Your task to perform on an android device: snooze an email in the gmail app Image 0: 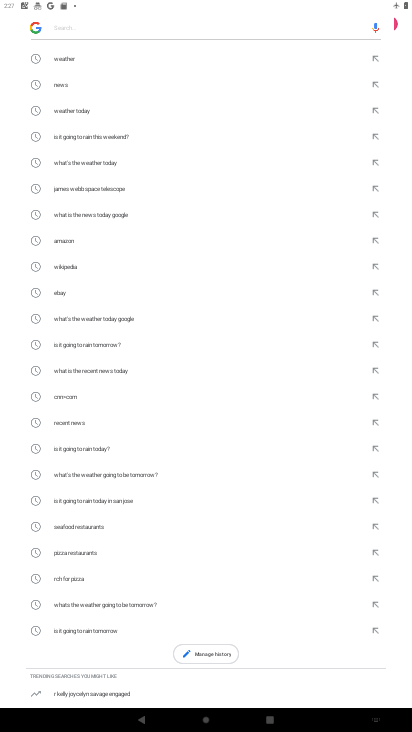
Step 0: press home button
Your task to perform on an android device: snooze an email in the gmail app Image 1: 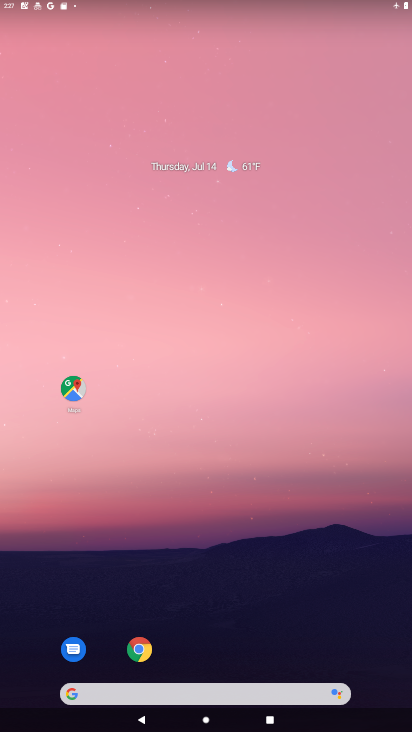
Step 1: drag from (296, 684) to (362, 3)
Your task to perform on an android device: snooze an email in the gmail app Image 2: 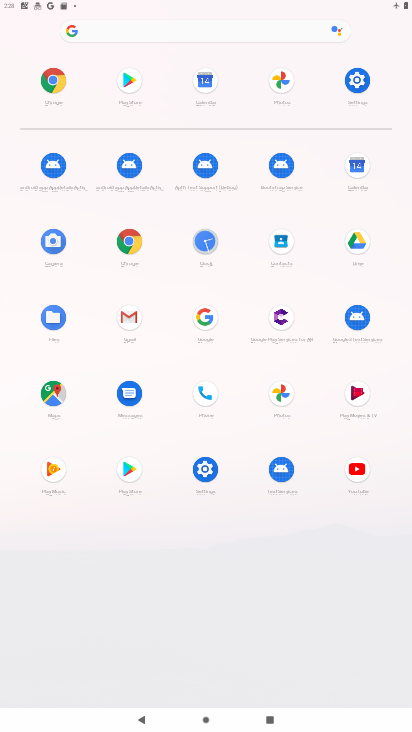
Step 2: click (126, 308)
Your task to perform on an android device: snooze an email in the gmail app Image 3: 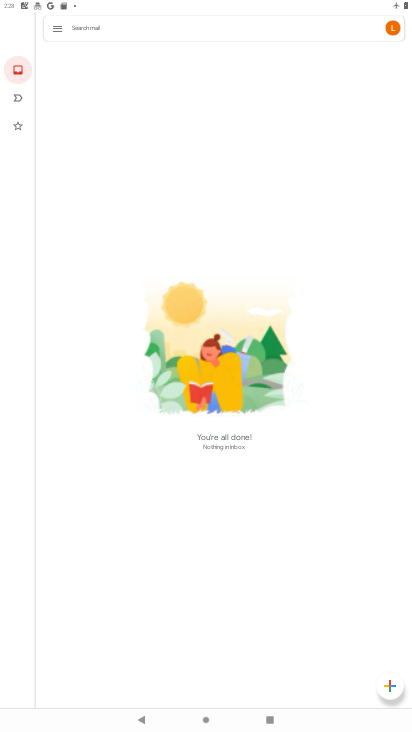
Step 3: click (61, 29)
Your task to perform on an android device: snooze an email in the gmail app Image 4: 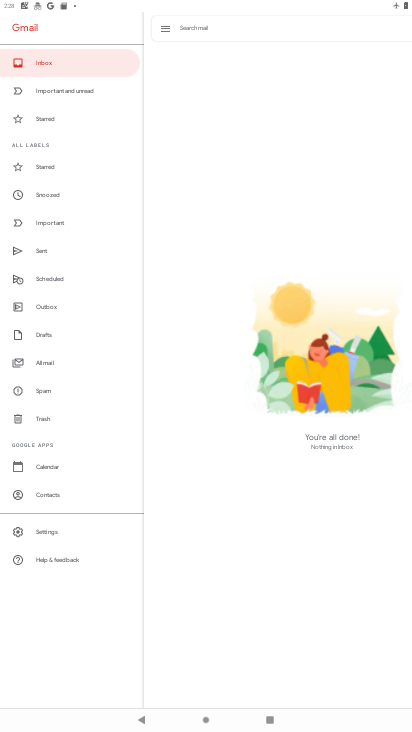
Step 4: click (61, 200)
Your task to perform on an android device: snooze an email in the gmail app Image 5: 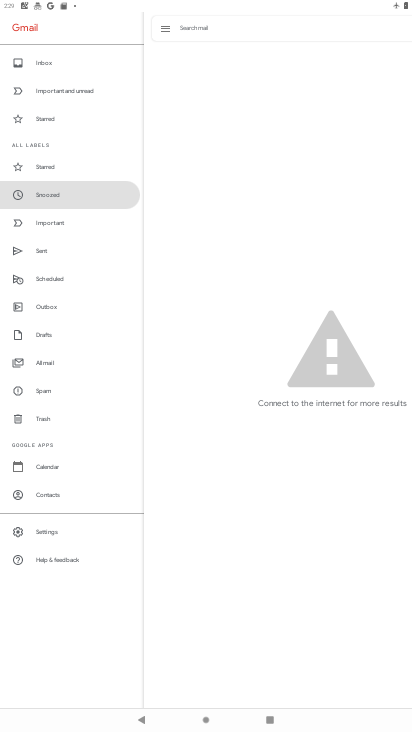
Step 5: task complete